Your task to perform on an android device: What's the weather going to be tomorrow? Image 0: 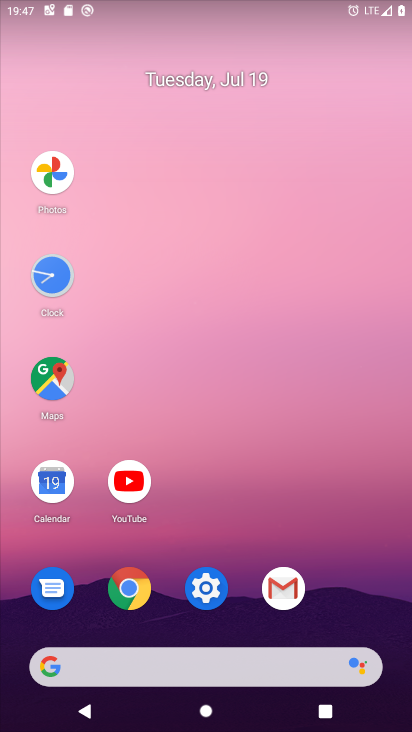
Step 0: click (169, 664)
Your task to perform on an android device: What's the weather going to be tomorrow? Image 1: 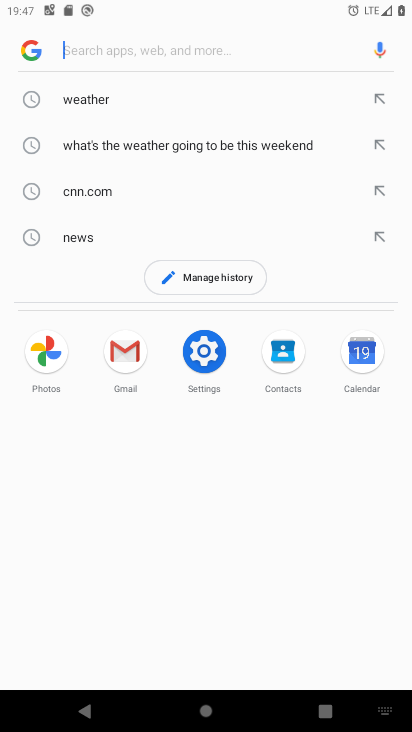
Step 1: click (94, 96)
Your task to perform on an android device: What's the weather going to be tomorrow? Image 2: 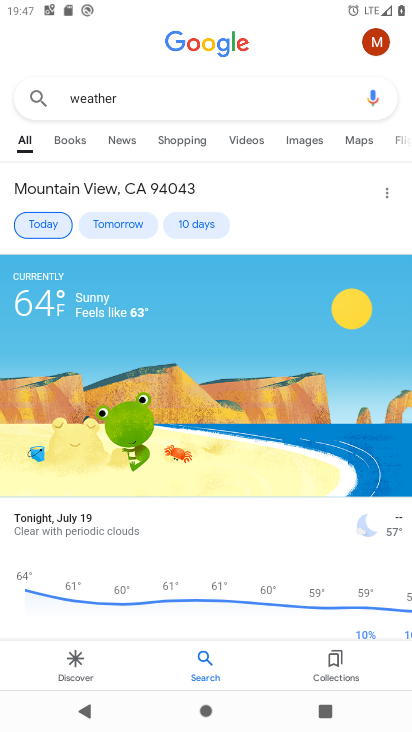
Step 2: click (107, 222)
Your task to perform on an android device: What's the weather going to be tomorrow? Image 3: 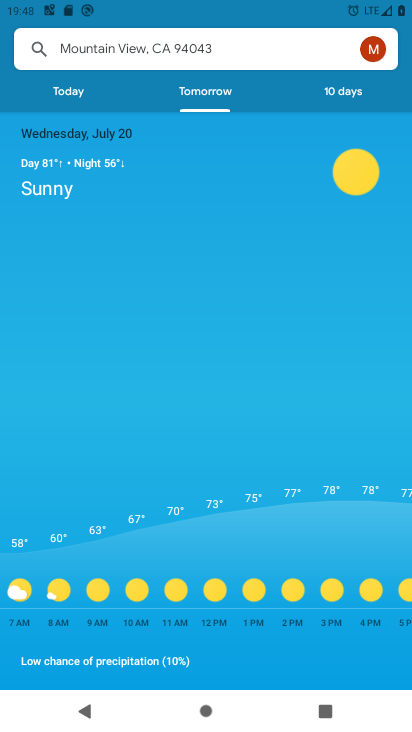
Step 3: task complete